Your task to perform on an android device: turn smart compose on in the gmail app Image 0: 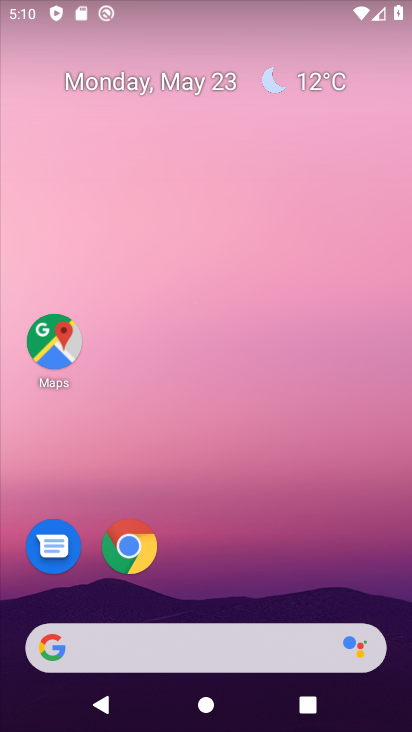
Step 0: drag from (262, 617) to (264, 149)
Your task to perform on an android device: turn smart compose on in the gmail app Image 1: 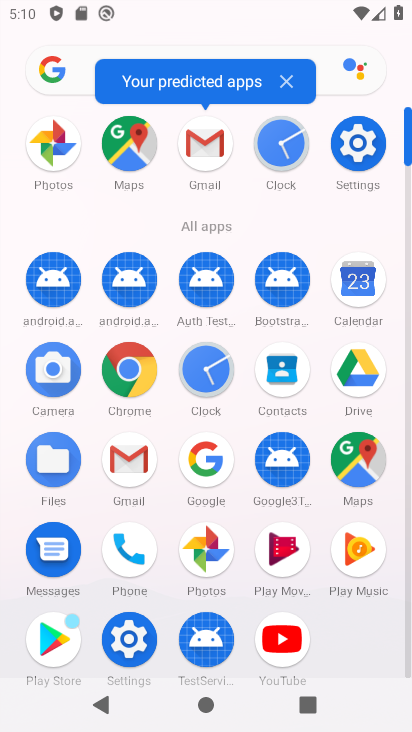
Step 1: click (131, 465)
Your task to perform on an android device: turn smart compose on in the gmail app Image 2: 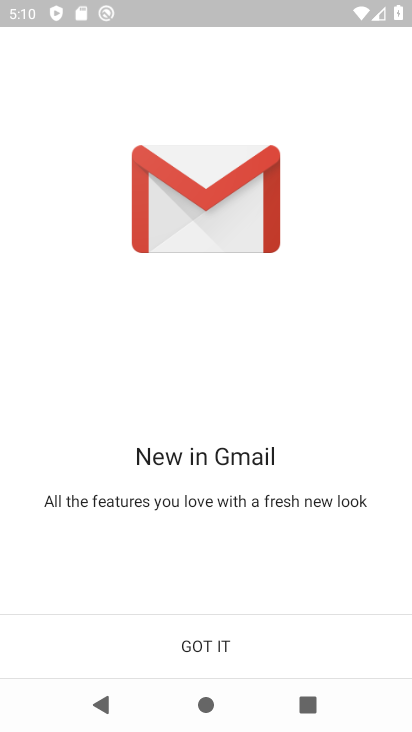
Step 2: click (196, 642)
Your task to perform on an android device: turn smart compose on in the gmail app Image 3: 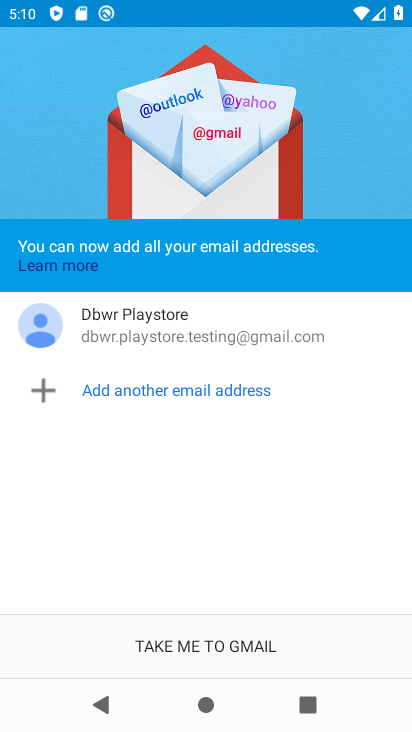
Step 3: click (196, 642)
Your task to perform on an android device: turn smart compose on in the gmail app Image 4: 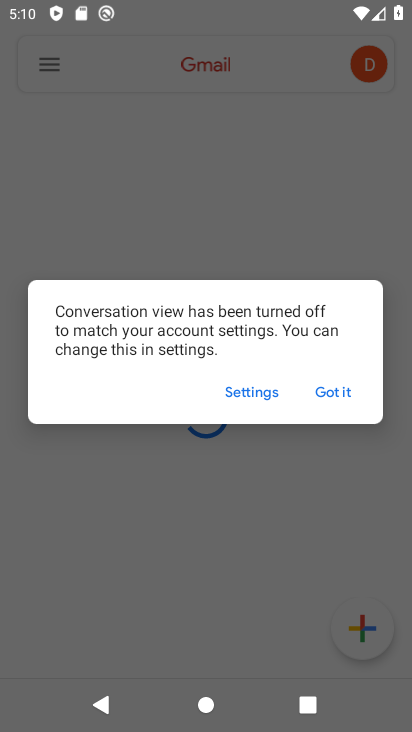
Step 4: click (339, 392)
Your task to perform on an android device: turn smart compose on in the gmail app Image 5: 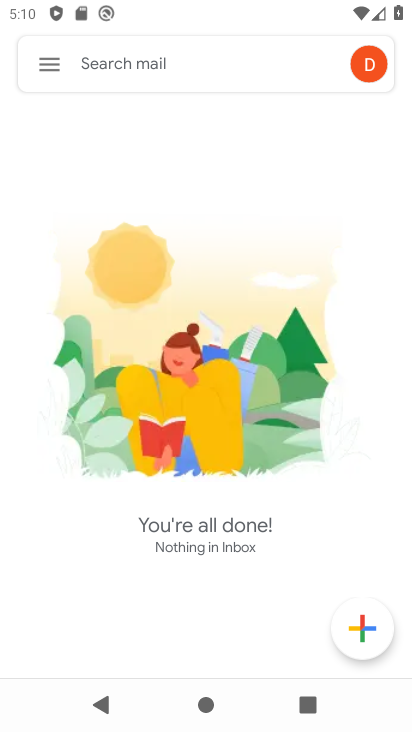
Step 5: click (51, 64)
Your task to perform on an android device: turn smart compose on in the gmail app Image 6: 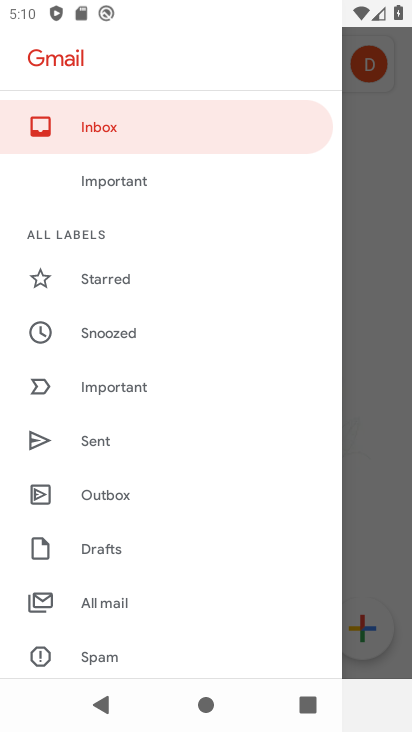
Step 6: drag from (228, 640) to (263, 268)
Your task to perform on an android device: turn smart compose on in the gmail app Image 7: 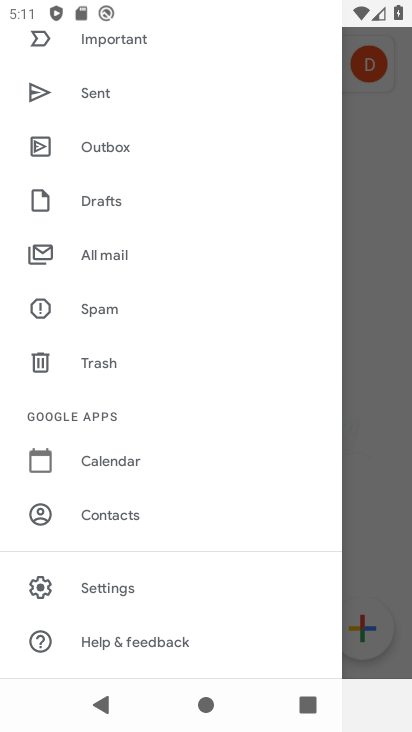
Step 7: click (121, 585)
Your task to perform on an android device: turn smart compose on in the gmail app Image 8: 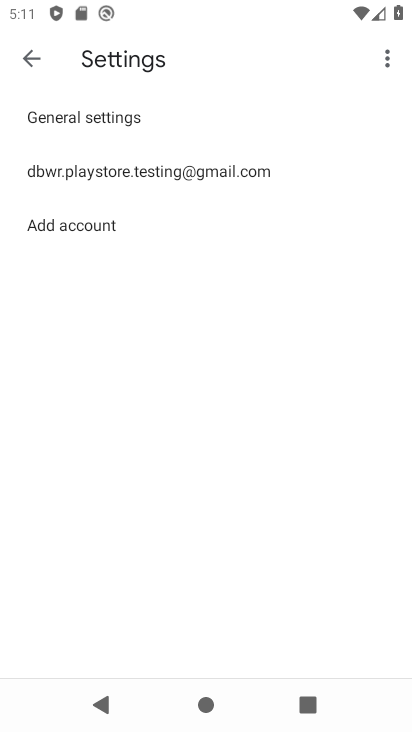
Step 8: click (248, 169)
Your task to perform on an android device: turn smart compose on in the gmail app Image 9: 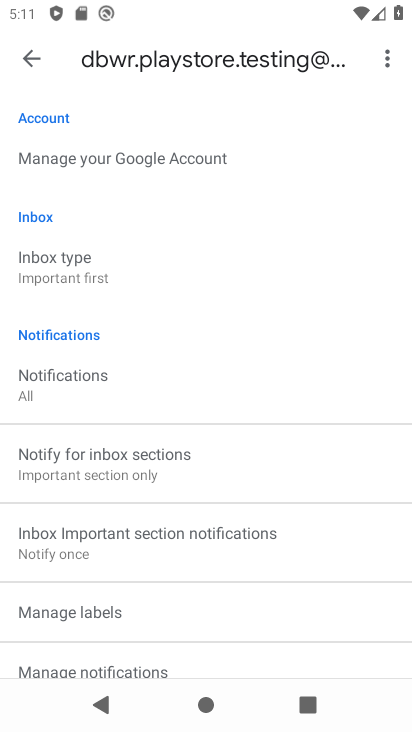
Step 9: task complete